Your task to perform on an android device: Add "usb-a" to the cart on newegg, then select checkout. Image 0: 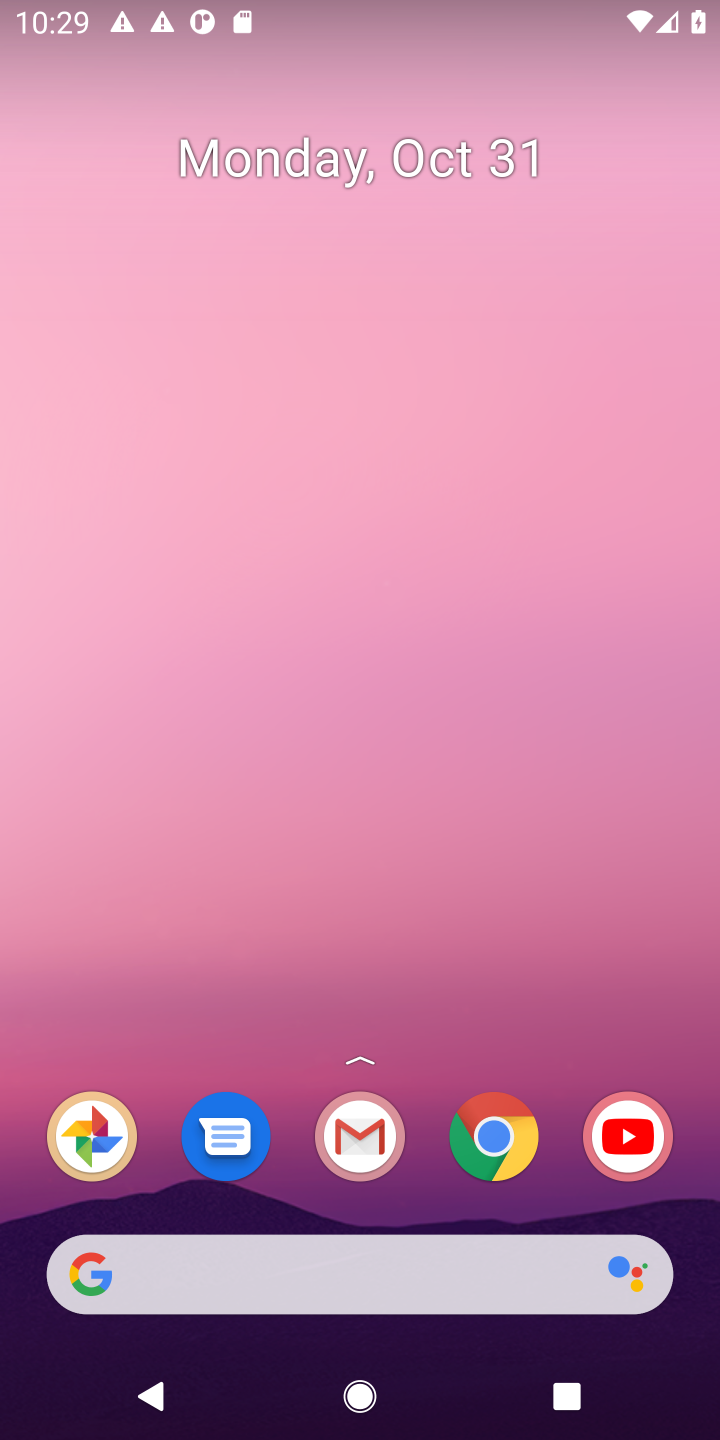
Step 0: press home button
Your task to perform on an android device: Add "usb-a" to the cart on newegg, then select checkout. Image 1: 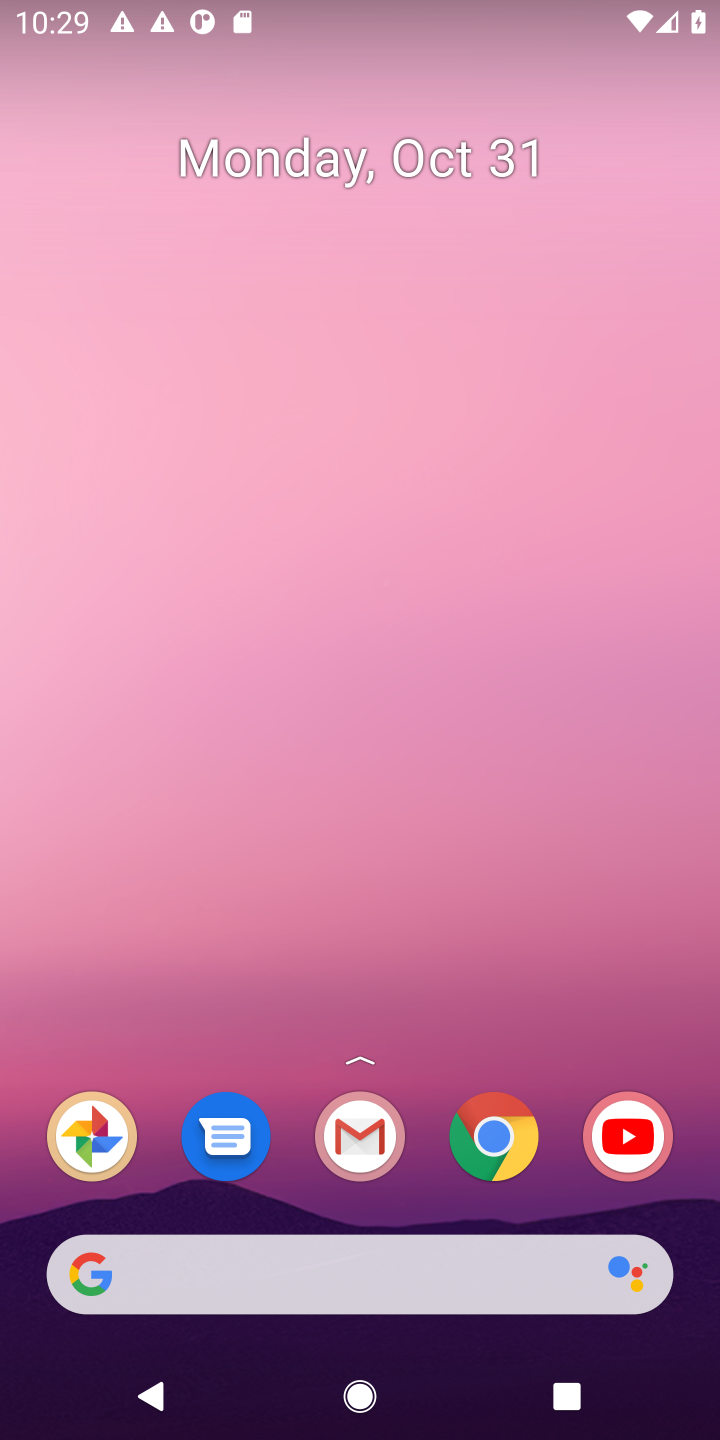
Step 1: press home button
Your task to perform on an android device: Add "usb-a" to the cart on newegg, then select checkout. Image 2: 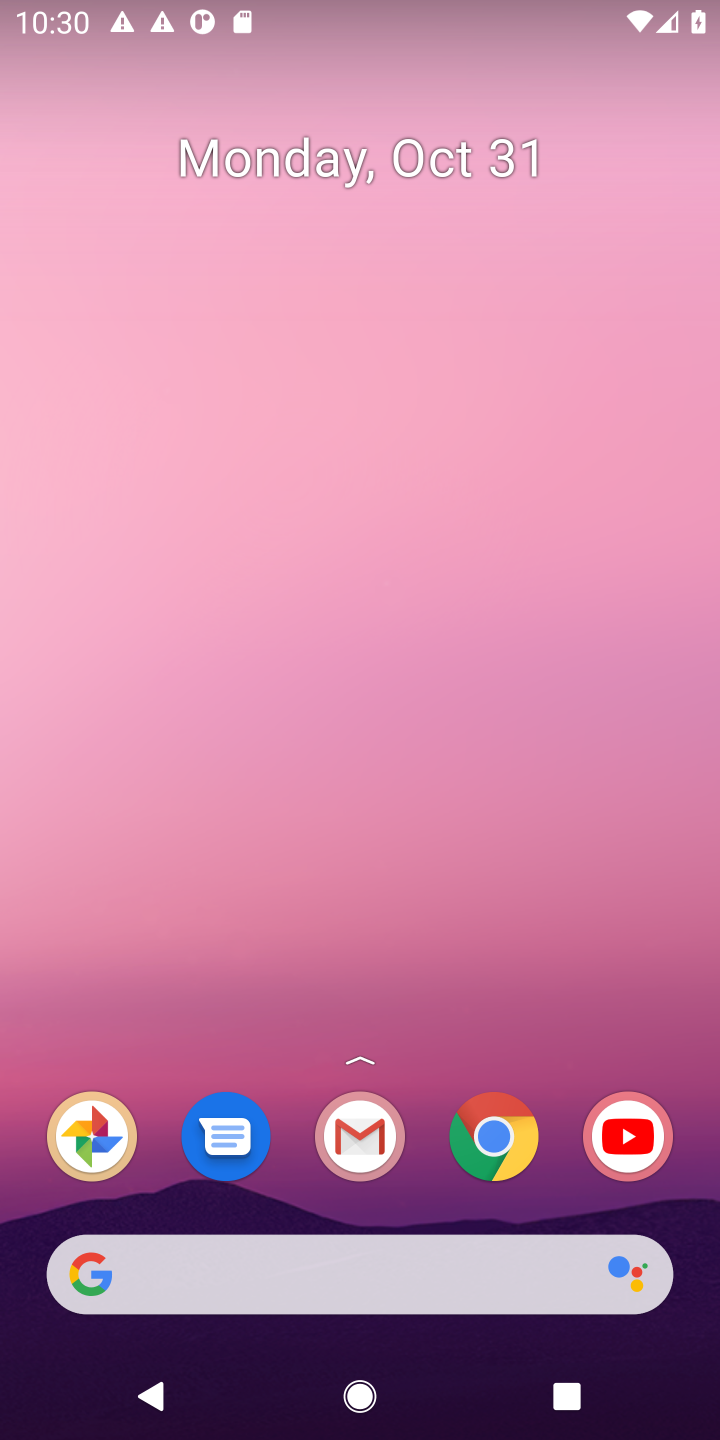
Step 2: click (135, 1280)
Your task to perform on an android device: Add "usb-a" to the cart on newegg, then select checkout. Image 3: 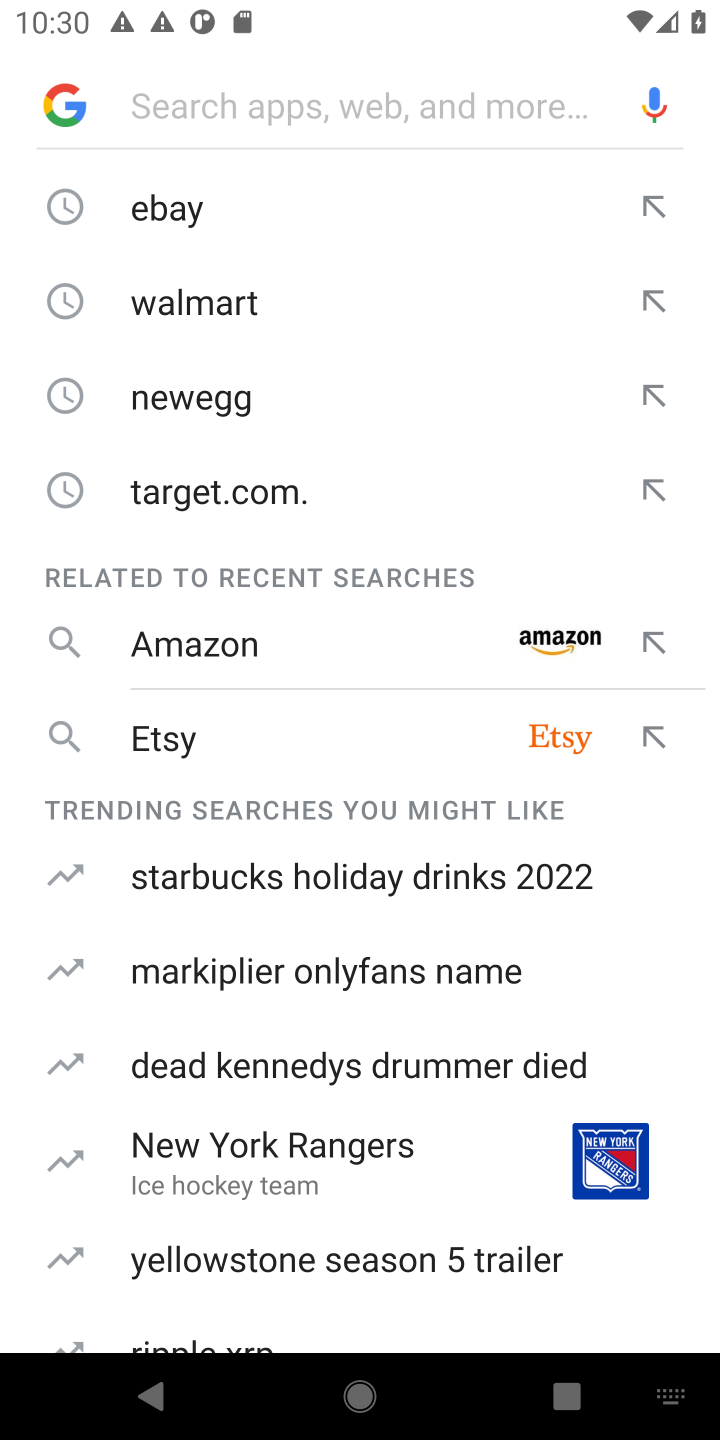
Step 3: type "newegg"
Your task to perform on an android device: Add "usb-a" to the cart on newegg, then select checkout. Image 4: 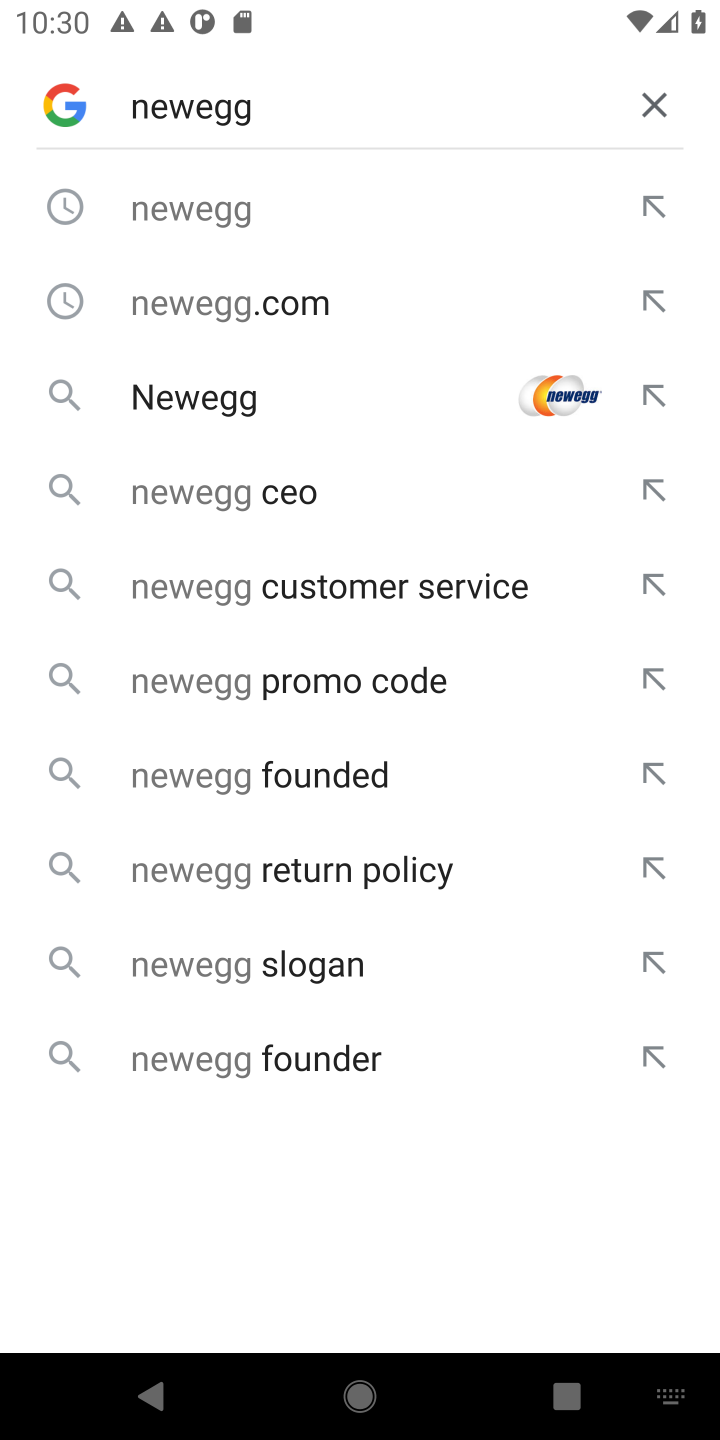
Step 4: press enter
Your task to perform on an android device: Add "usb-a" to the cart on newegg, then select checkout. Image 5: 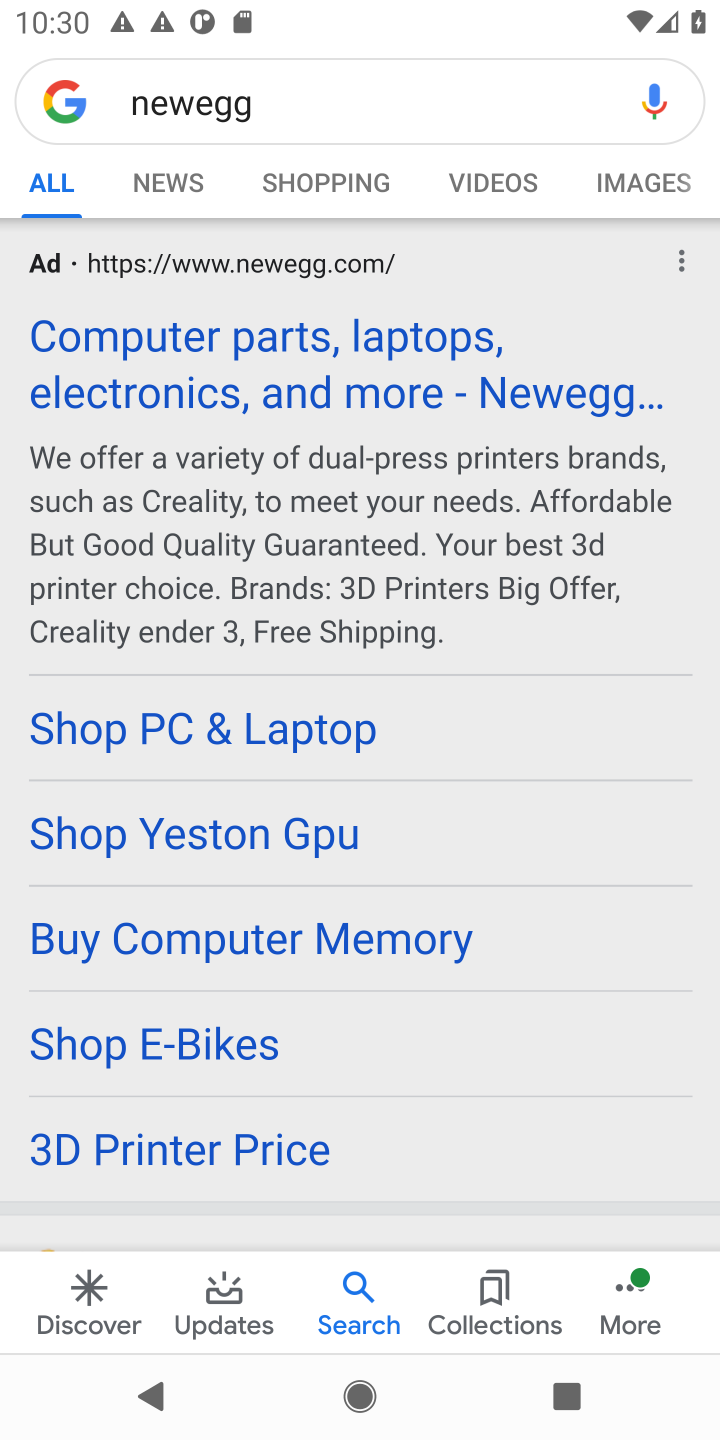
Step 5: drag from (537, 959) to (571, 501)
Your task to perform on an android device: Add "usb-a" to the cart on newegg, then select checkout. Image 6: 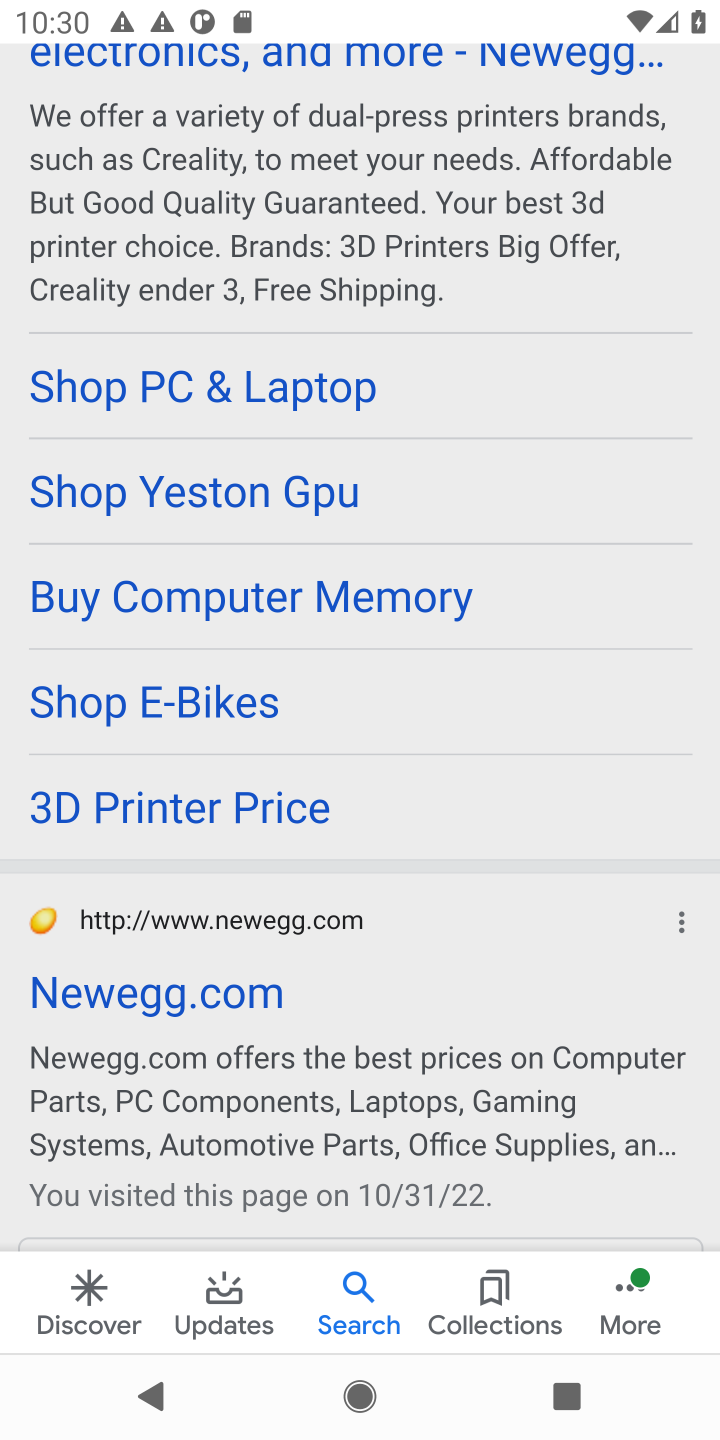
Step 6: click (156, 1004)
Your task to perform on an android device: Add "usb-a" to the cart on newegg, then select checkout. Image 7: 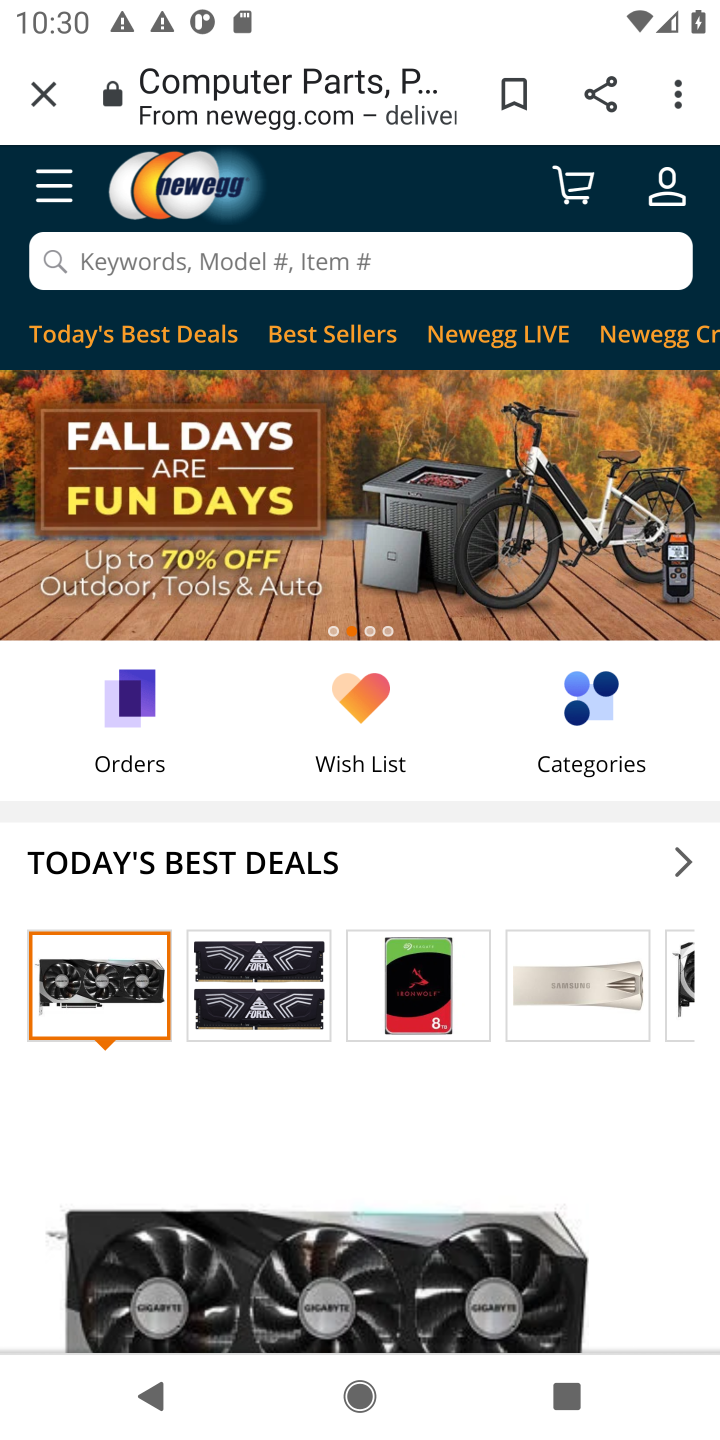
Step 7: click (263, 260)
Your task to perform on an android device: Add "usb-a" to the cart on newegg, then select checkout. Image 8: 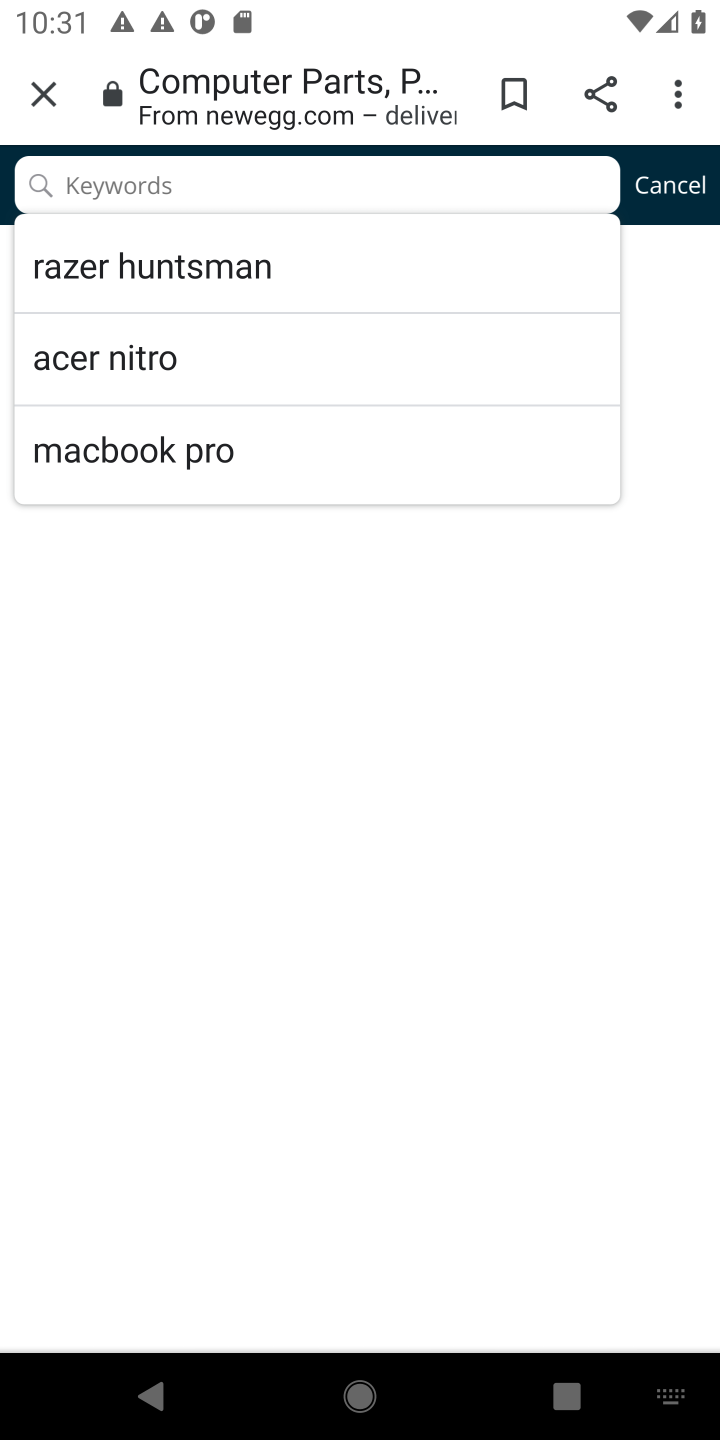
Step 8: type "usb a"
Your task to perform on an android device: Add "usb-a" to the cart on newegg, then select checkout. Image 9: 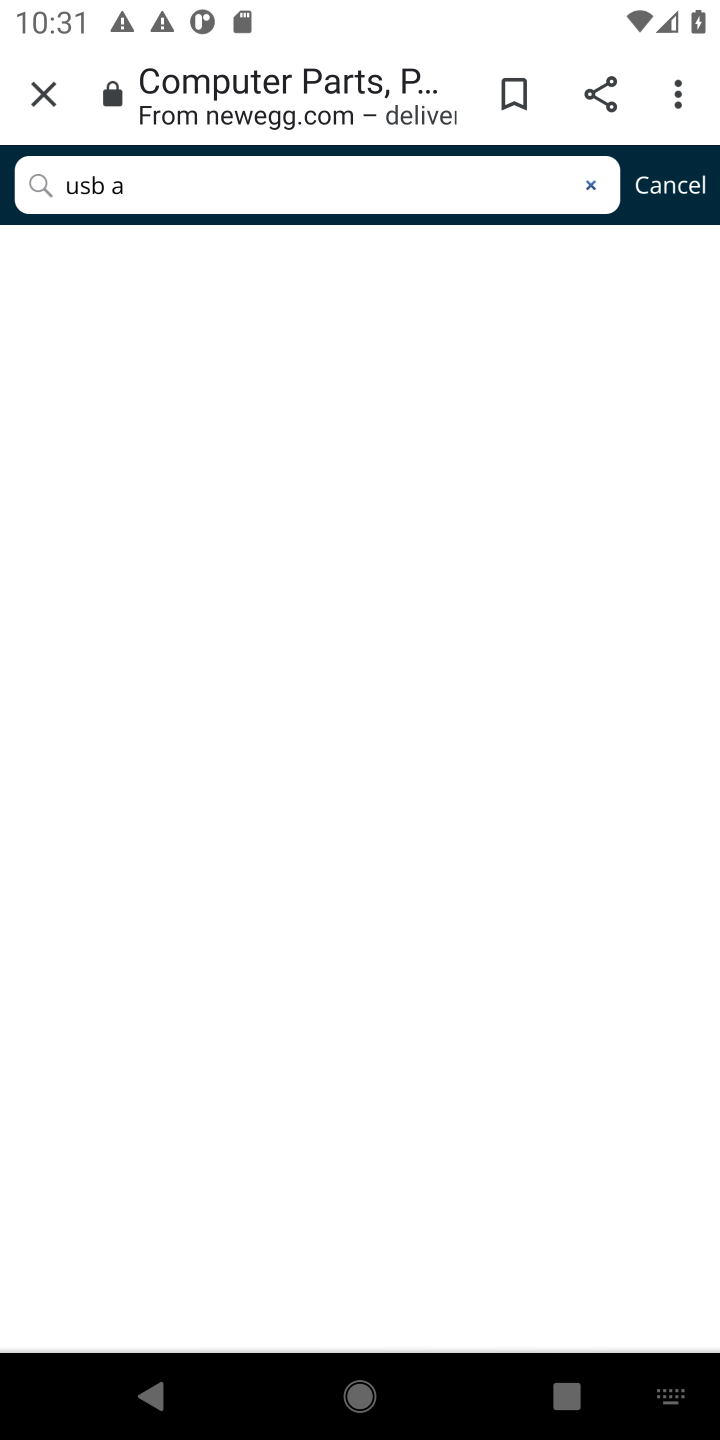
Step 9: press enter
Your task to perform on an android device: Add "usb-a" to the cart on newegg, then select checkout. Image 10: 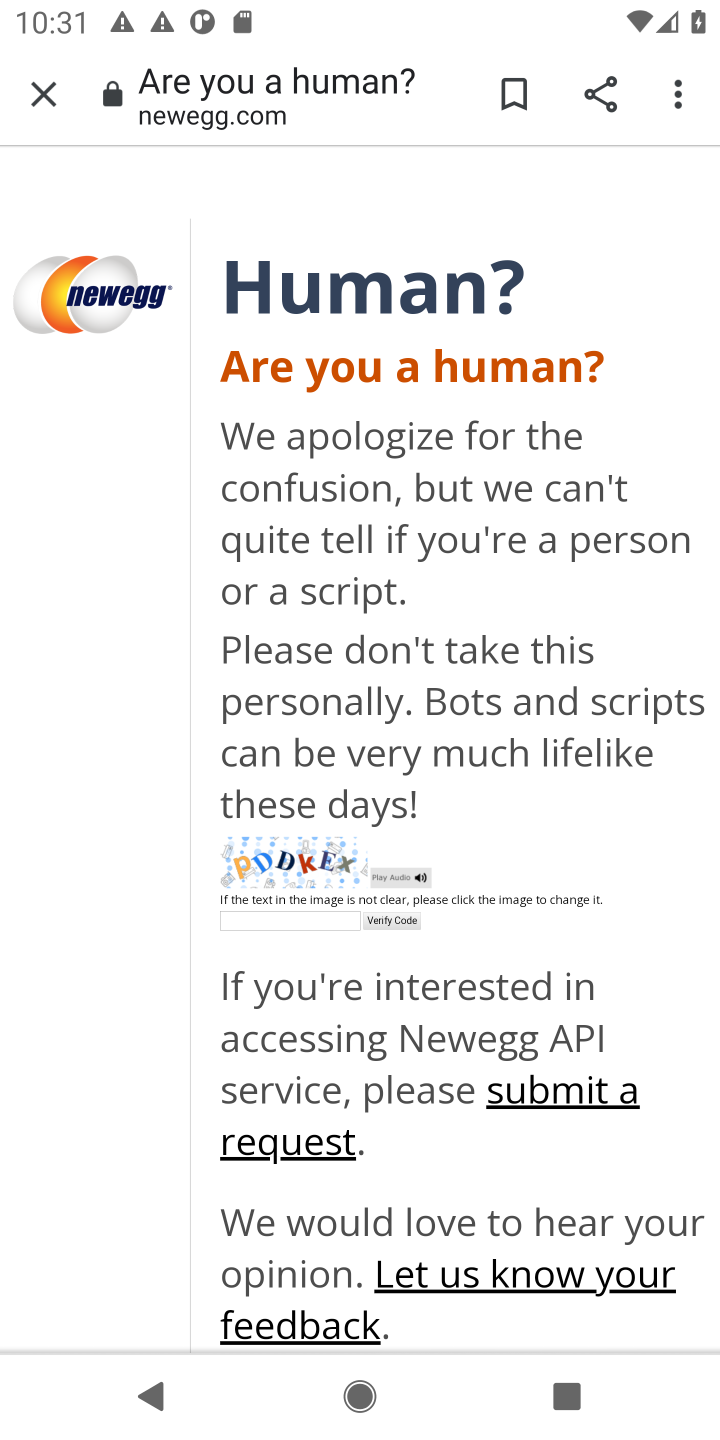
Step 10: task complete